Your task to perform on an android device: Is it going to rain tomorrow? Image 0: 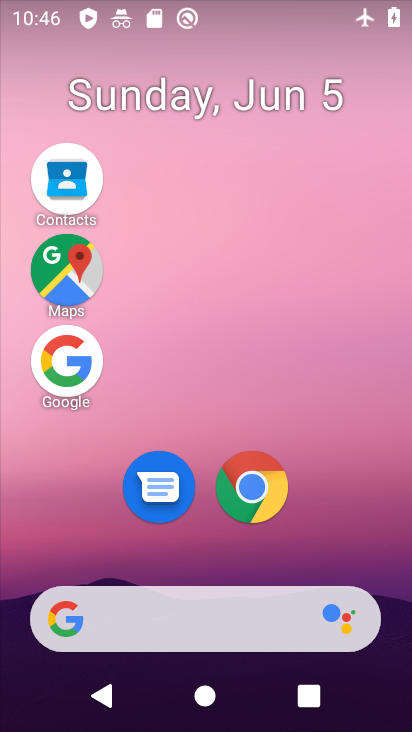
Step 0: drag from (208, 607) to (247, 123)
Your task to perform on an android device: Is it going to rain tomorrow? Image 1: 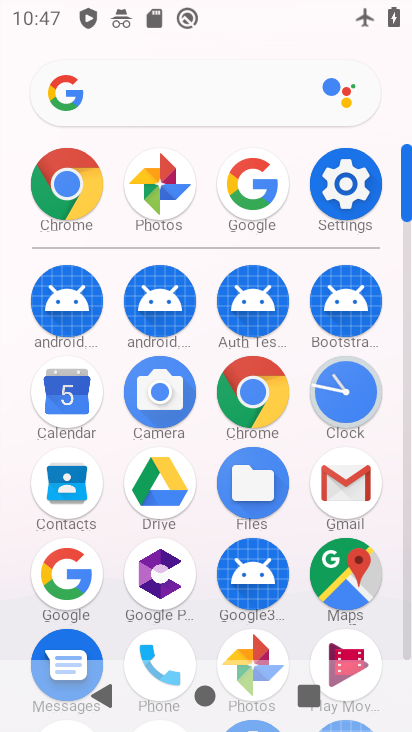
Step 1: click (88, 568)
Your task to perform on an android device: Is it going to rain tomorrow? Image 2: 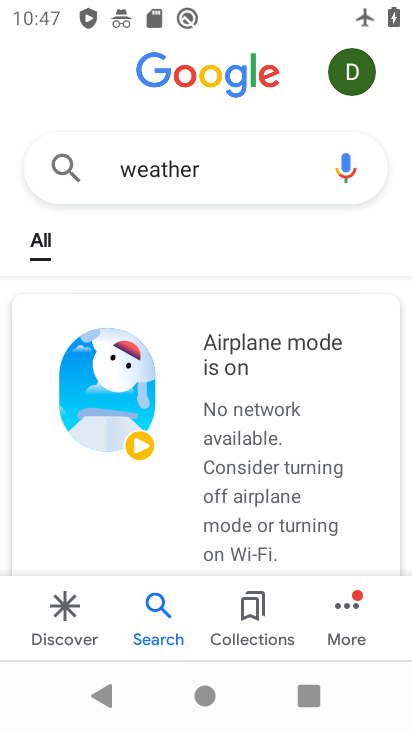
Step 2: task complete